Your task to perform on an android device: turn off sleep mode Image 0: 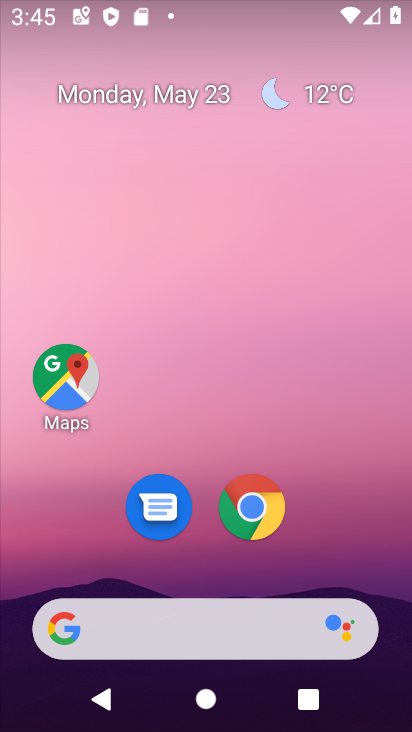
Step 0: drag from (187, 562) to (255, 27)
Your task to perform on an android device: turn off sleep mode Image 1: 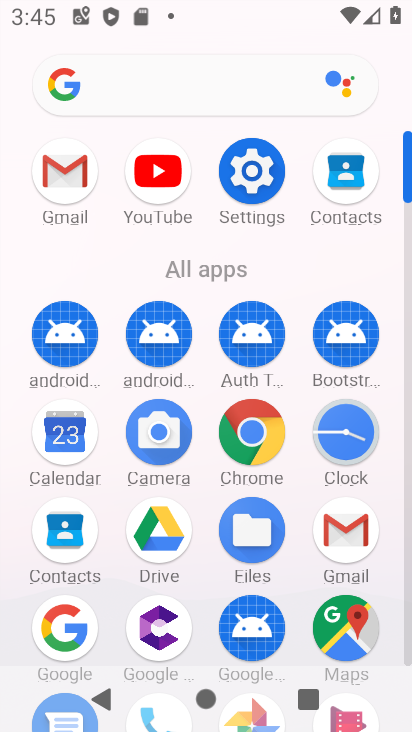
Step 1: click (247, 153)
Your task to perform on an android device: turn off sleep mode Image 2: 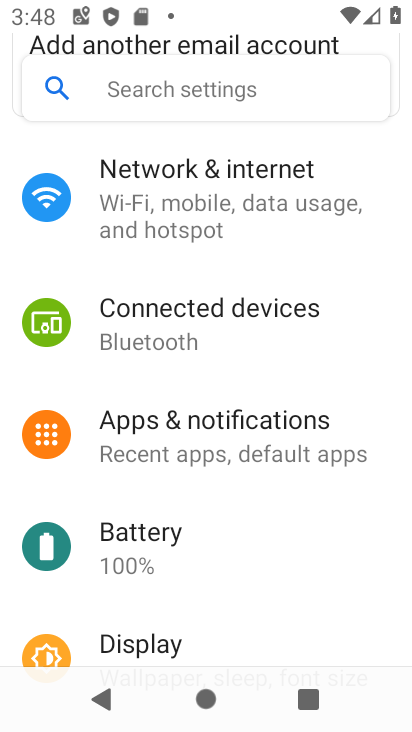
Step 2: task complete